Your task to perform on an android device: turn on sleep mode Image 0: 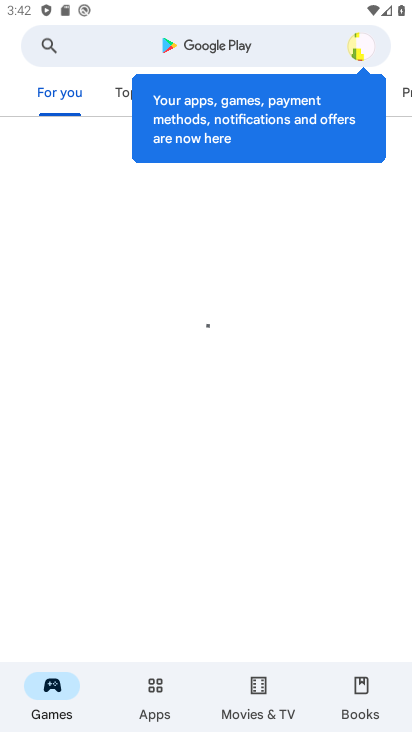
Step 0: press home button
Your task to perform on an android device: turn on sleep mode Image 1: 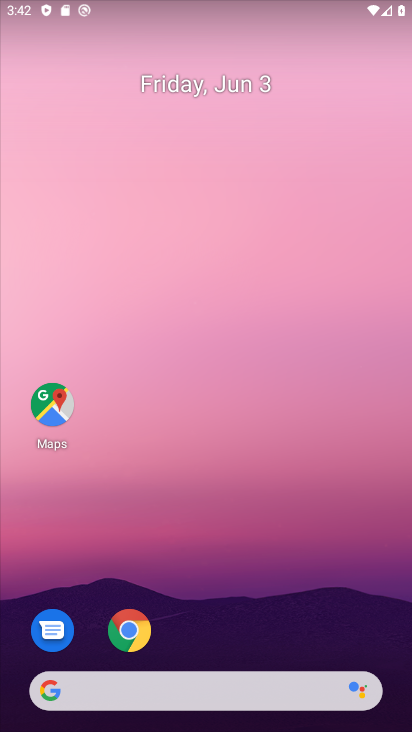
Step 1: drag from (255, 407) to (257, 71)
Your task to perform on an android device: turn on sleep mode Image 2: 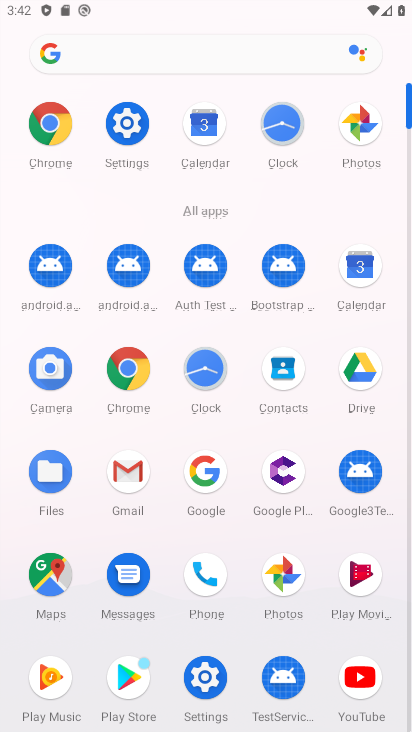
Step 2: click (206, 674)
Your task to perform on an android device: turn on sleep mode Image 3: 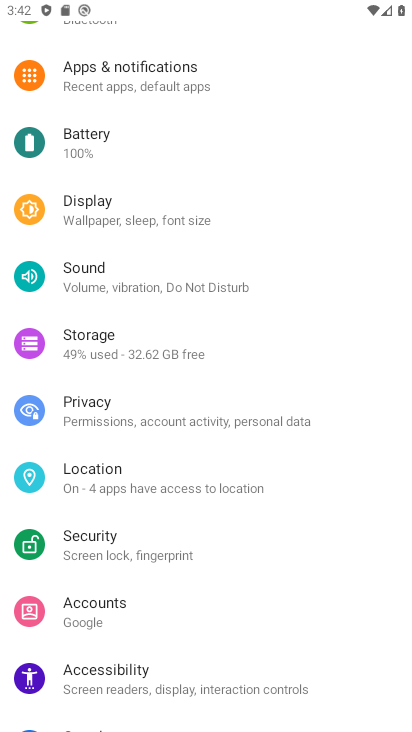
Step 3: click (137, 212)
Your task to perform on an android device: turn on sleep mode Image 4: 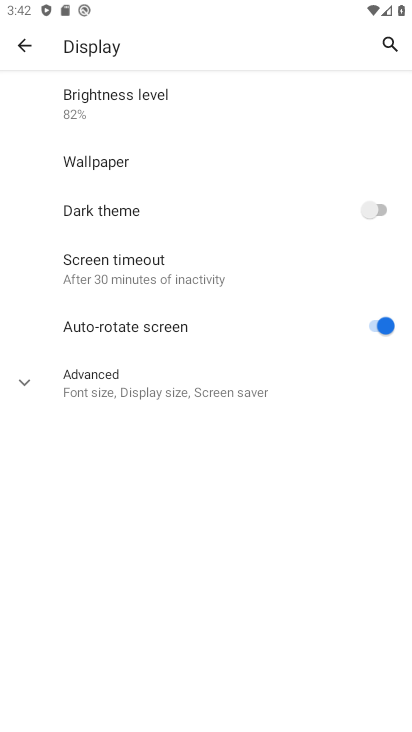
Step 4: task complete